Your task to perform on an android device: read, delete, or share a saved page in the chrome app Image 0: 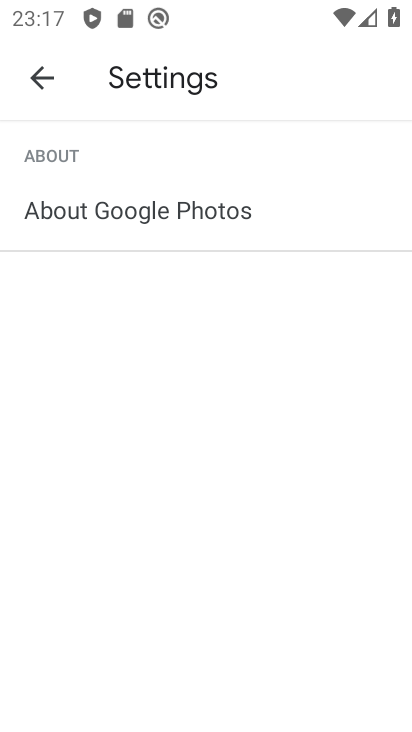
Step 0: press home button
Your task to perform on an android device: read, delete, or share a saved page in the chrome app Image 1: 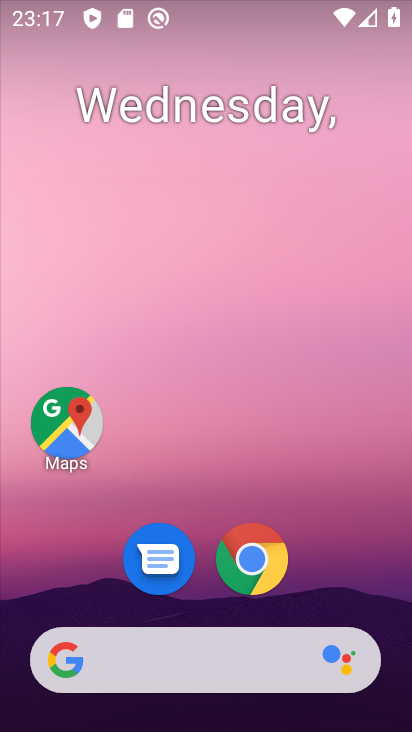
Step 1: click (256, 556)
Your task to perform on an android device: read, delete, or share a saved page in the chrome app Image 2: 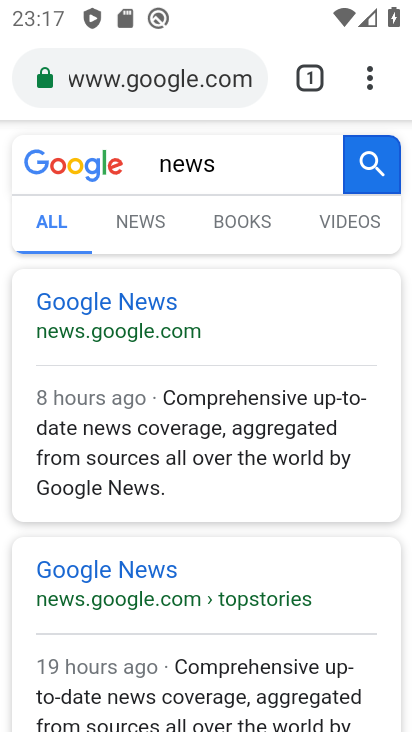
Step 2: click (376, 77)
Your task to perform on an android device: read, delete, or share a saved page in the chrome app Image 3: 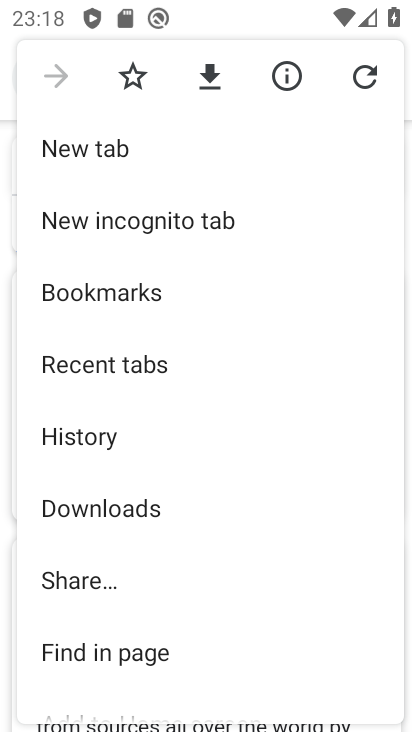
Step 3: click (133, 302)
Your task to perform on an android device: read, delete, or share a saved page in the chrome app Image 4: 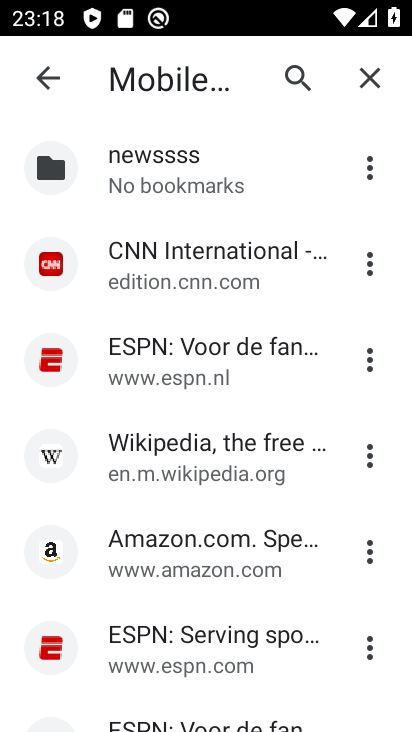
Step 4: click (371, 174)
Your task to perform on an android device: read, delete, or share a saved page in the chrome app Image 5: 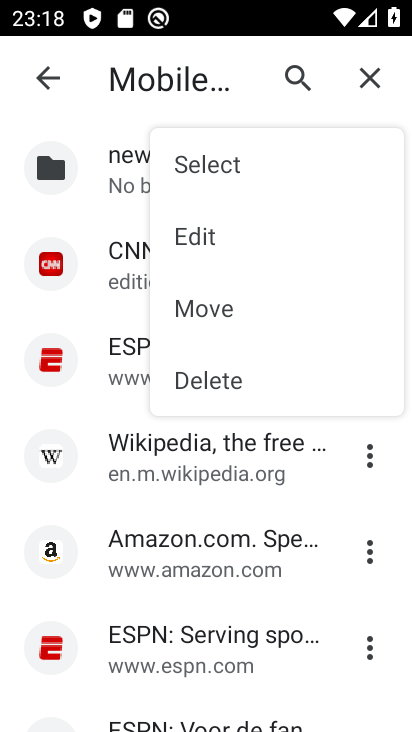
Step 5: click (193, 376)
Your task to perform on an android device: read, delete, or share a saved page in the chrome app Image 6: 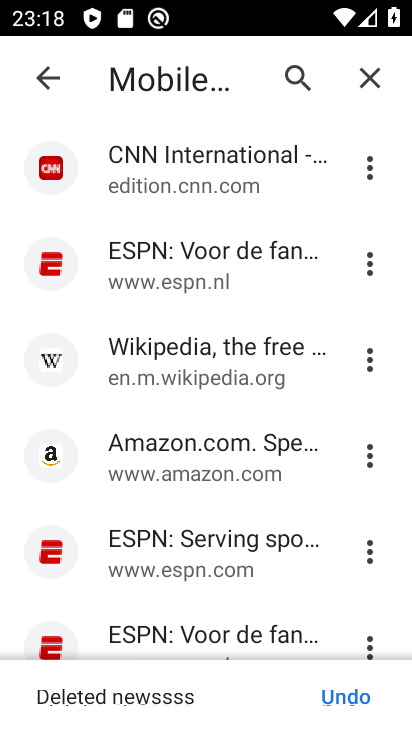
Step 6: task complete